Your task to perform on an android device: change the clock style Image 0: 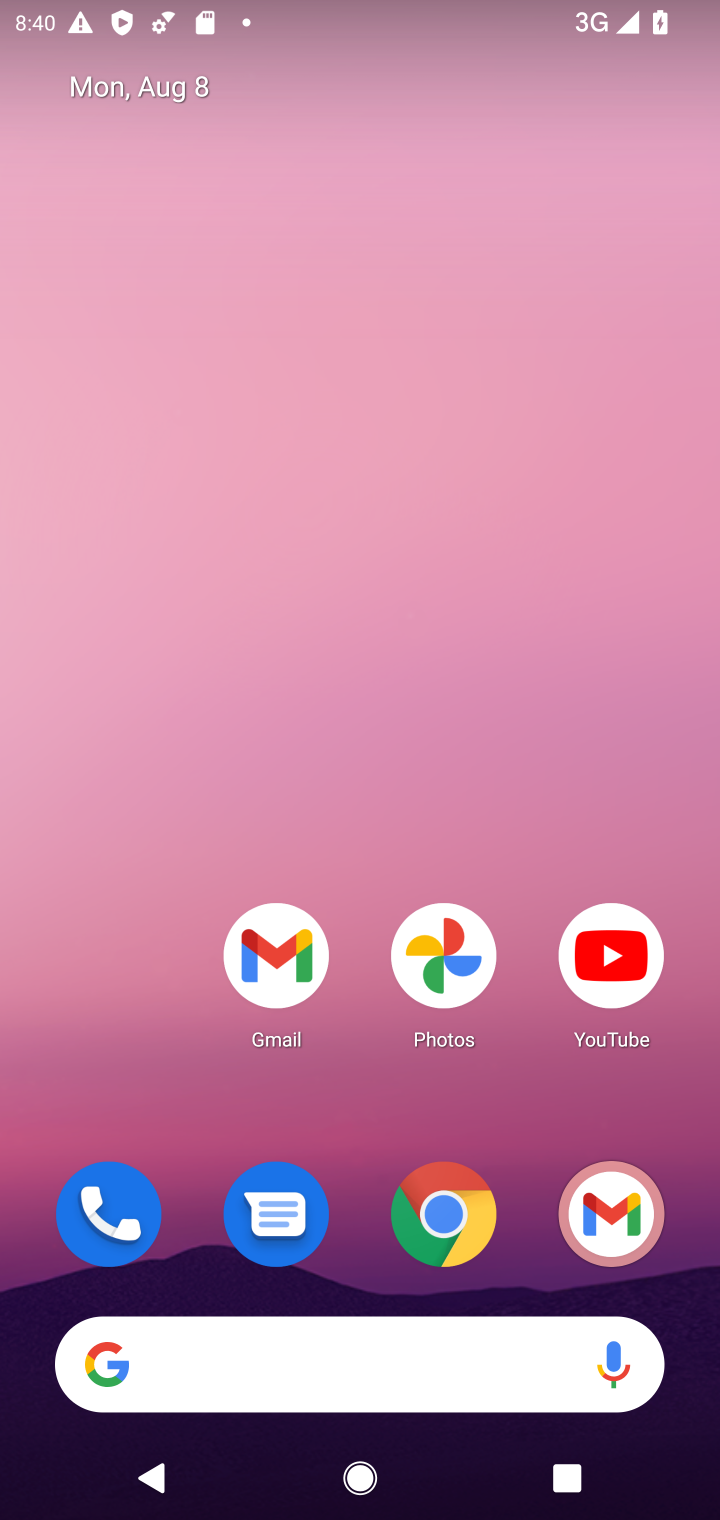
Step 0: drag from (385, 863) to (237, 3)
Your task to perform on an android device: change the clock style Image 1: 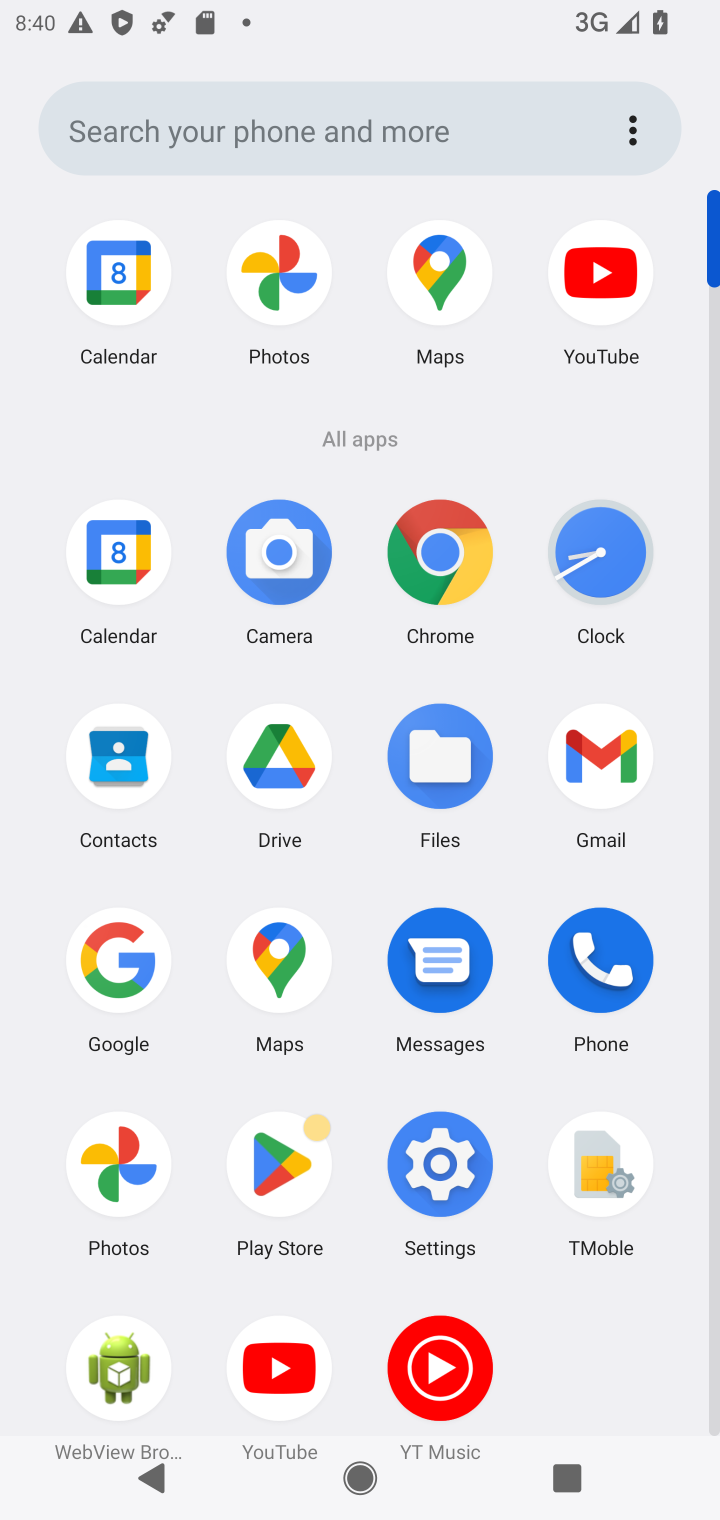
Step 1: click (445, 1129)
Your task to perform on an android device: change the clock style Image 2: 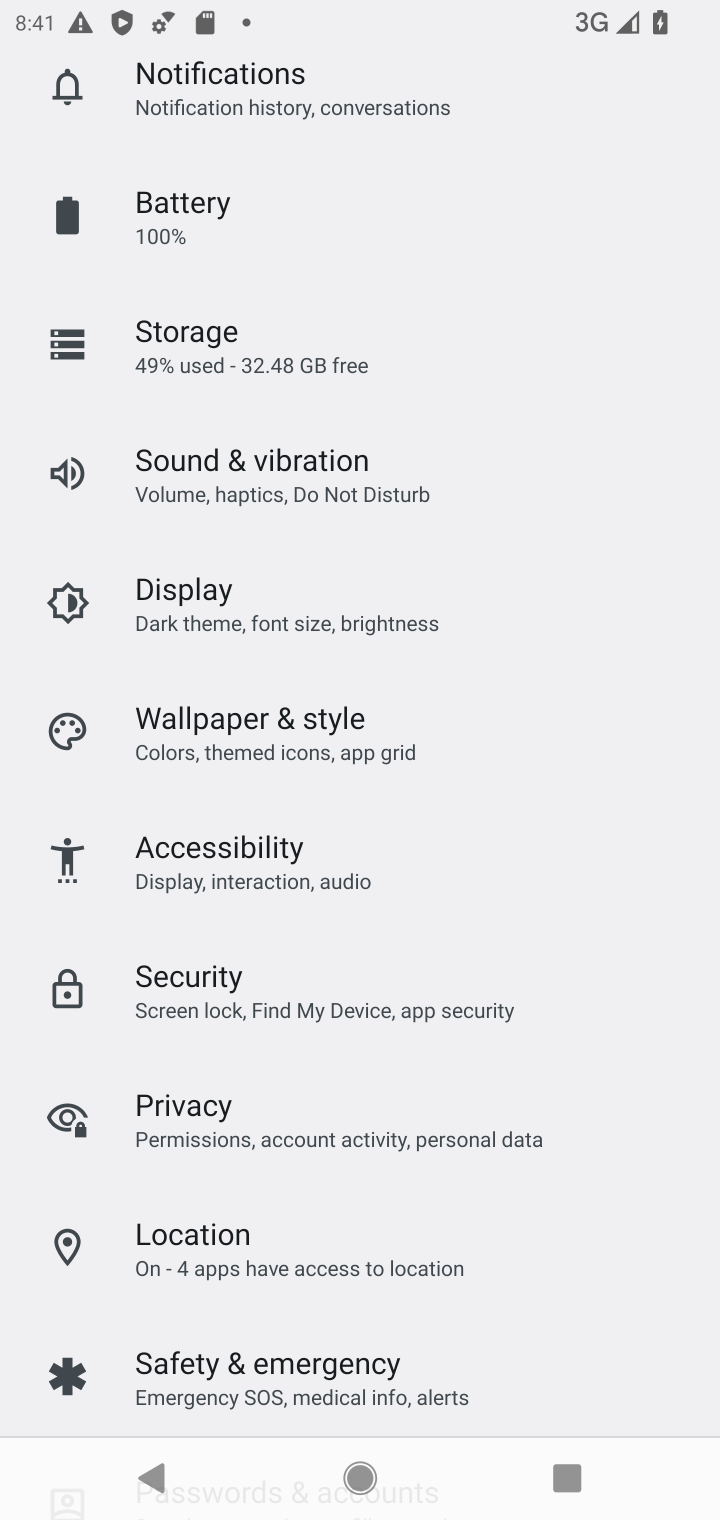
Step 2: press home button
Your task to perform on an android device: change the clock style Image 3: 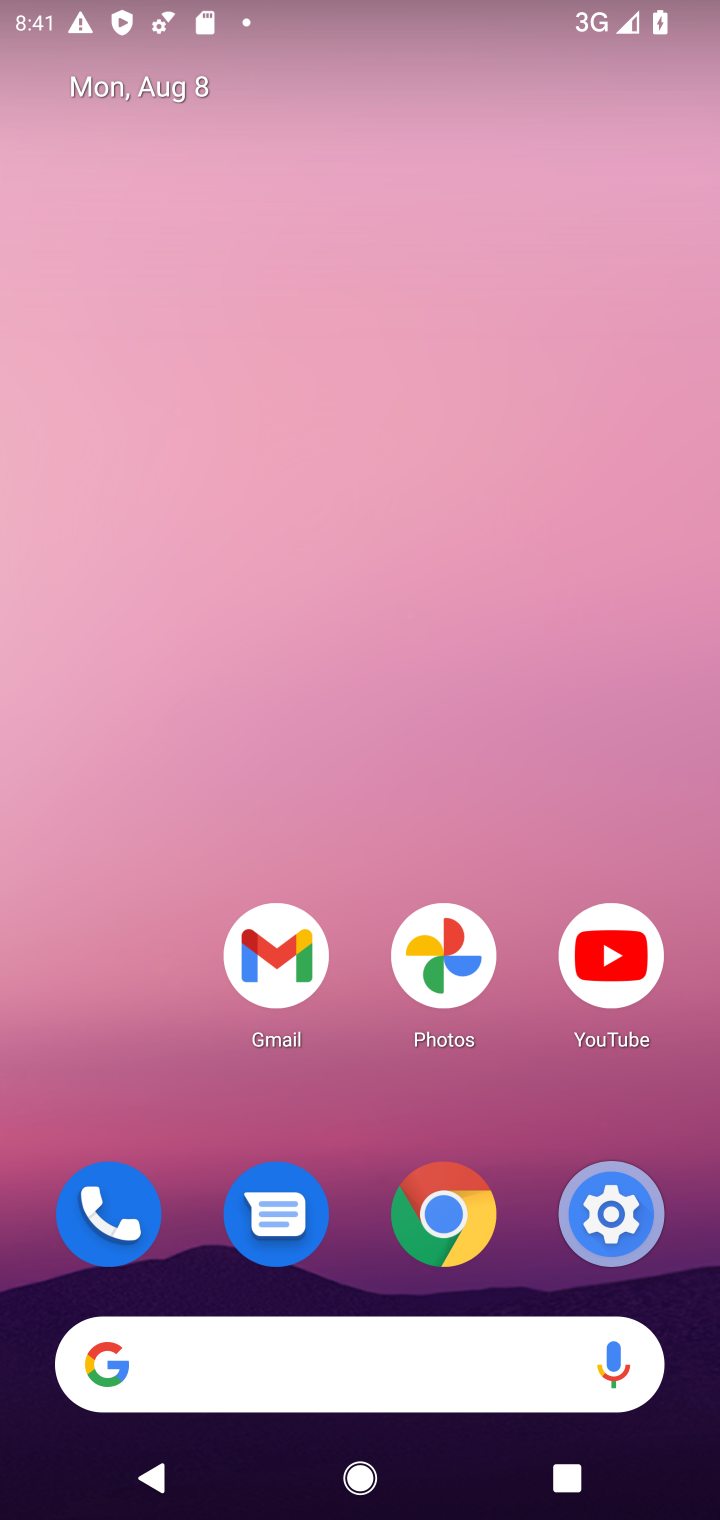
Step 3: drag from (140, 1011) to (253, 231)
Your task to perform on an android device: change the clock style Image 4: 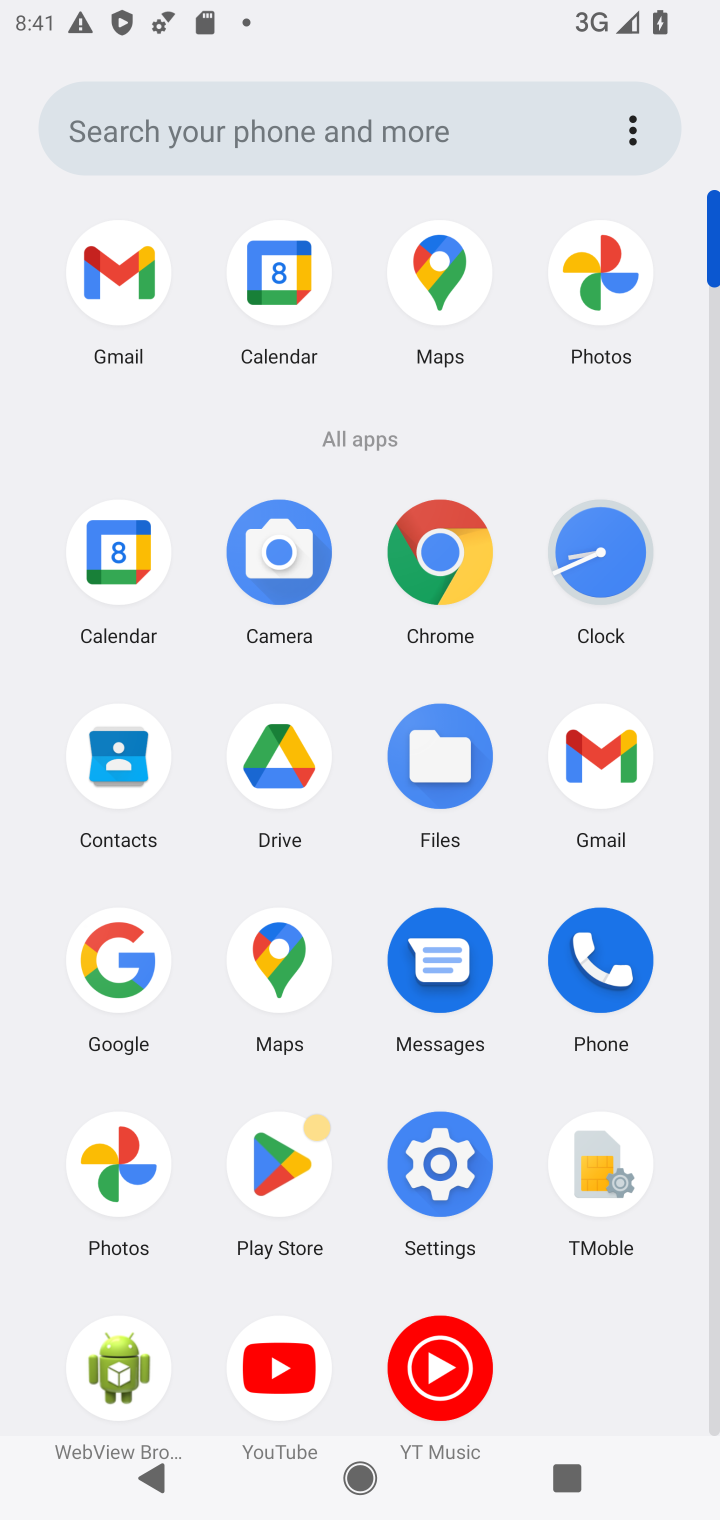
Step 4: click (619, 548)
Your task to perform on an android device: change the clock style Image 5: 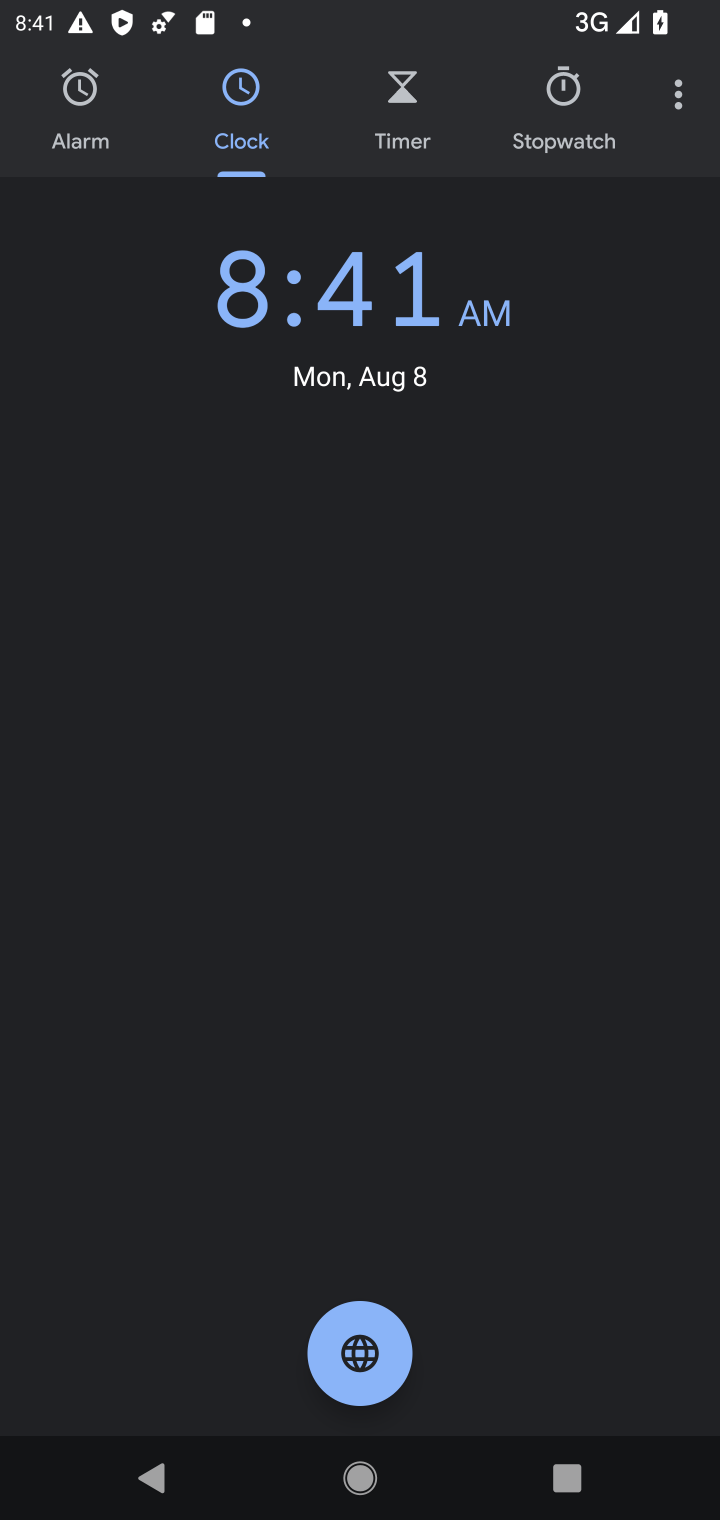
Step 5: click (671, 90)
Your task to perform on an android device: change the clock style Image 6: 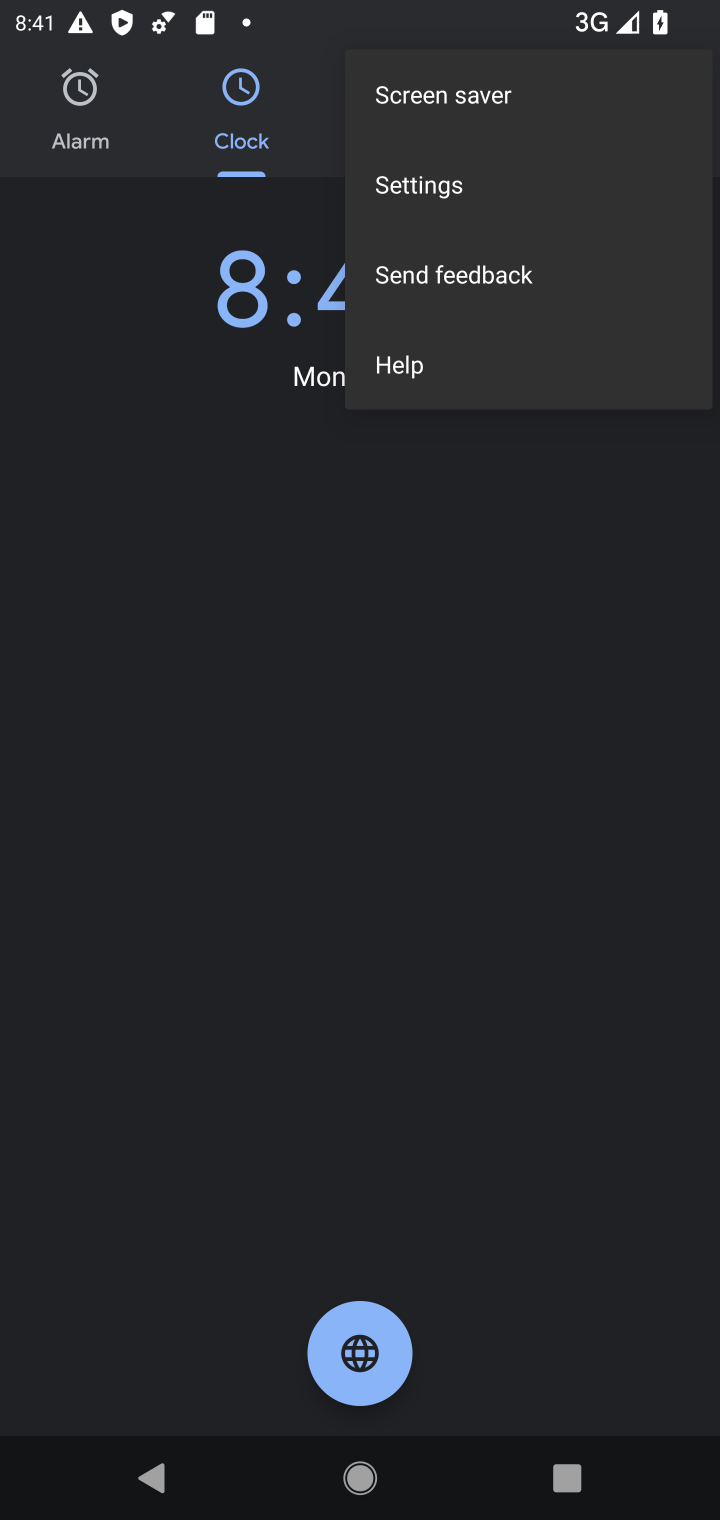
Step 6: click (483, 185)
Your task to perform on an android device: change the clock style Image 7: 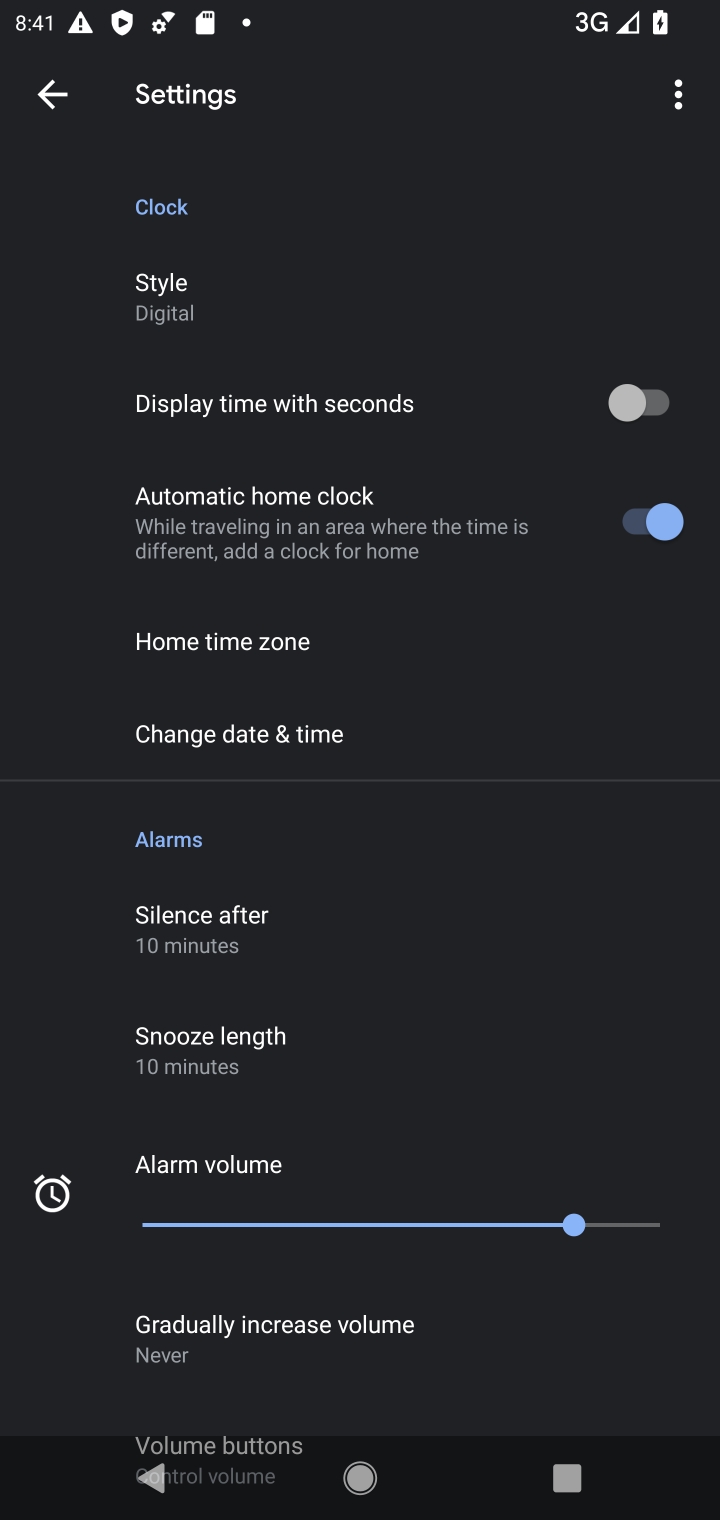
Step 7: click (352, 283)
Your task to perform on an android device: change the clock style Image 8: 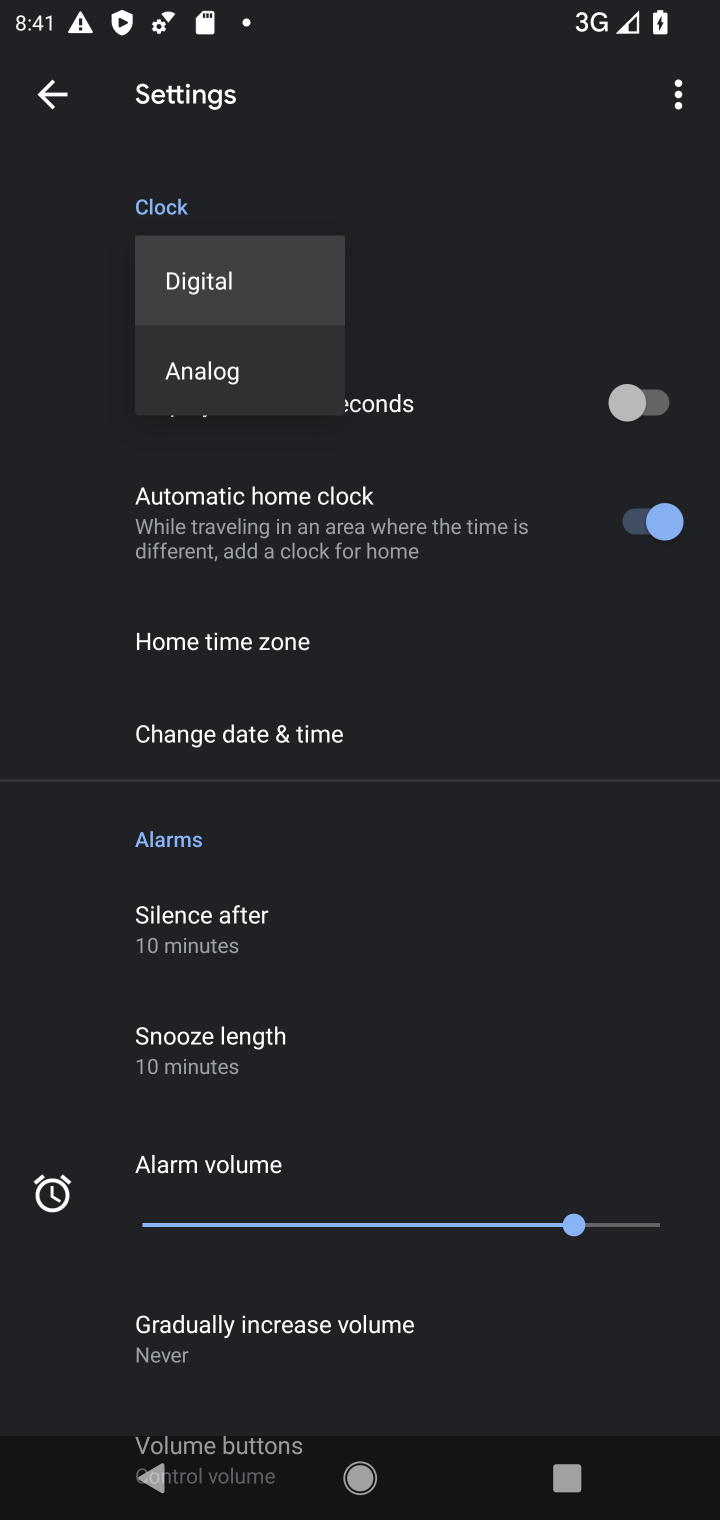
Step 8: click (236, 389)
Your task to perform on an android device: change the clock style Image 9: 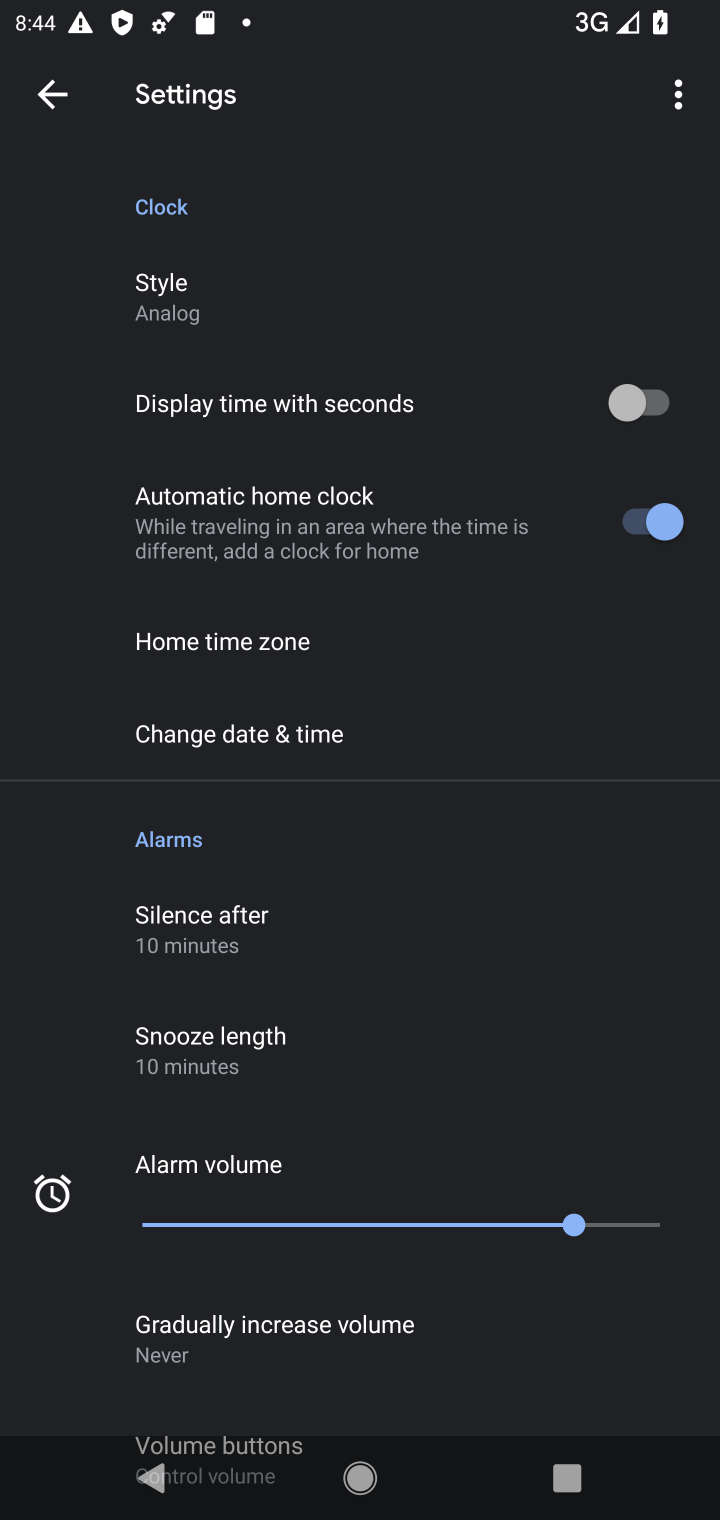
Step 9: task complete